Your task to perform on an android device: Check the news Image 0: 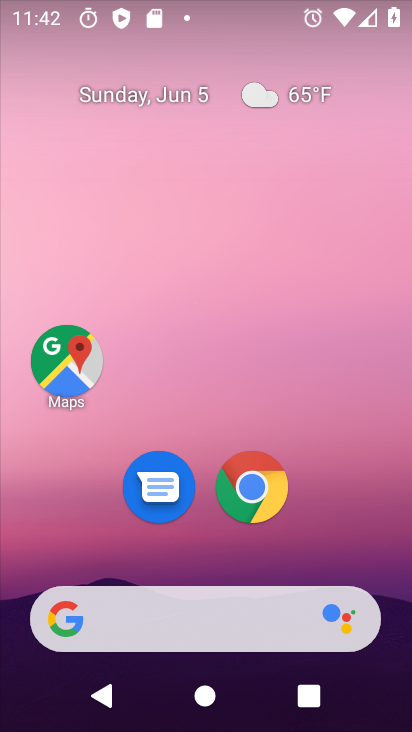
Step 0: click (247, 487)
Your task to perform on an android device: Check the news Image 1: 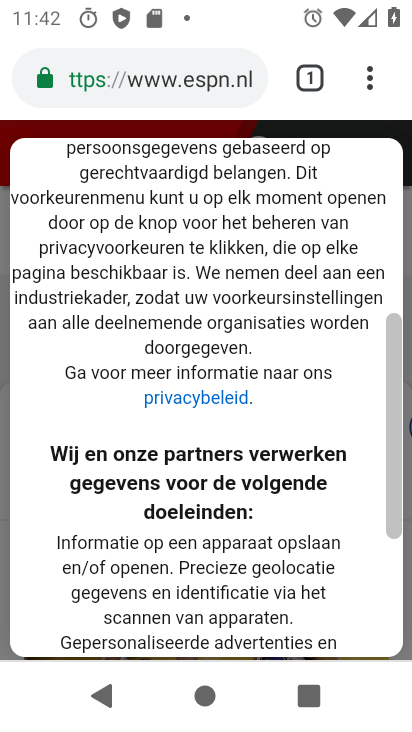
Step 1: click (237, 85)
Your task to perform on an android device: Check the news Image 2: 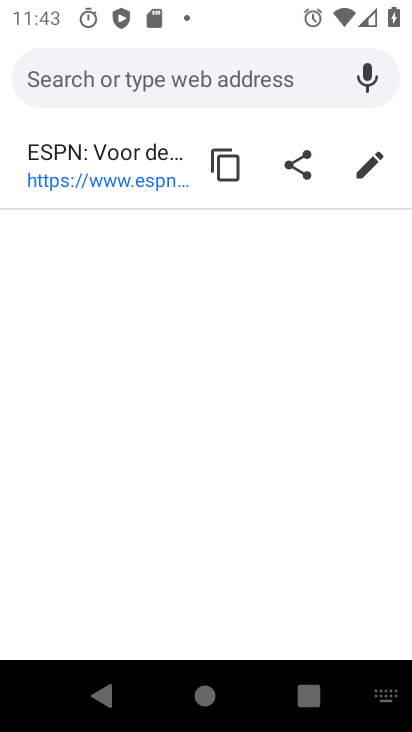
Step 2: type "news"
Your task to perform on an android device: Check the news Image 3: 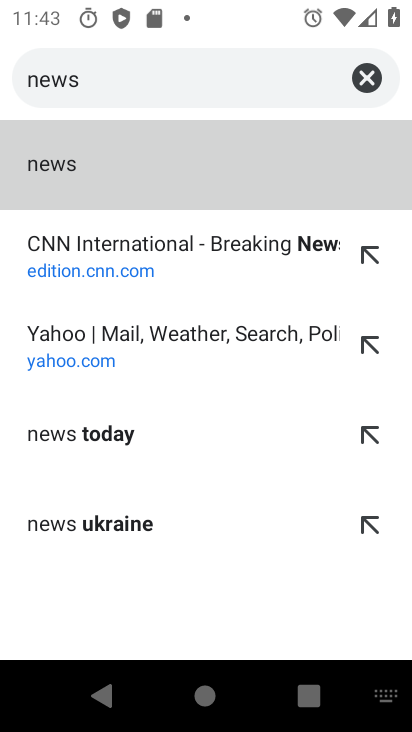
Step 3: click (185, 165)
Your task to perform on an android device: Check the news Image 4: 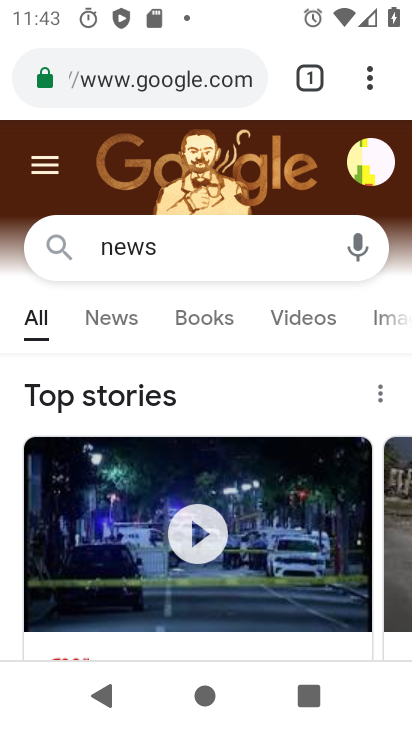
Step 4: drag from (244, 506) to (323, 270)
Your task to perform on an android device: Check the news Image 5: 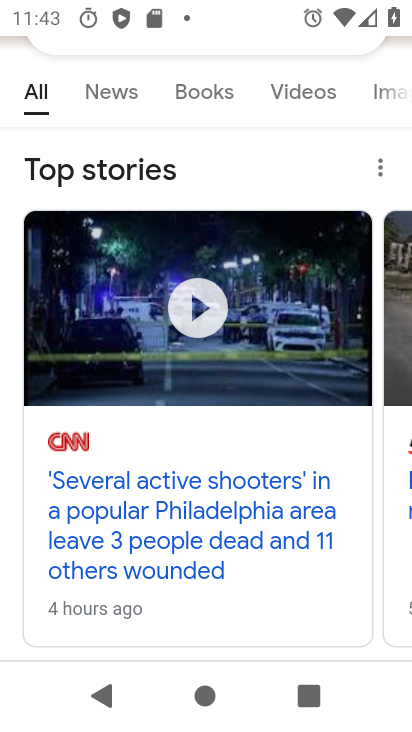
Step 5: click (222, 502)
Your task to perform on an android device: Check the news Image 6: 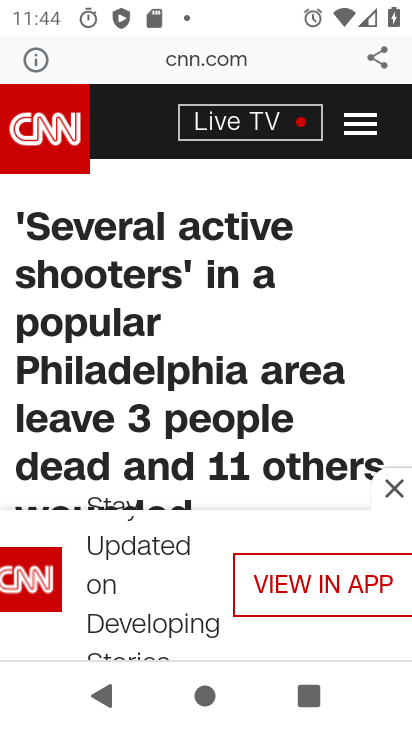
Step 6: task complete